Your task to perform on an android device: open chrome and create a bookmark for the current page Image 0: 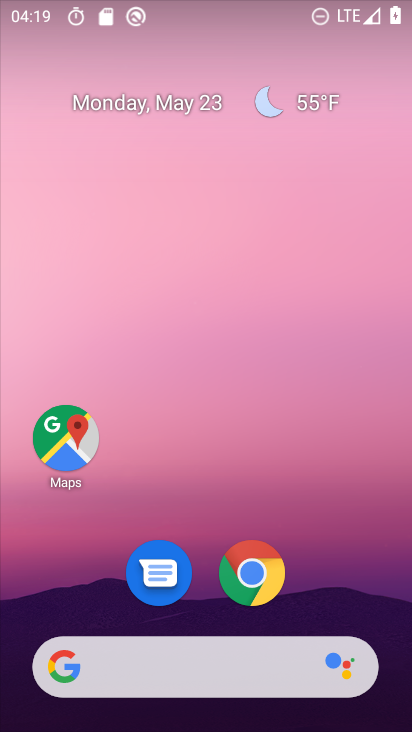
Step 0: click (258, 575)
Your task to perform on an android device: open chrome and create a bookmark for the current page Image 1: 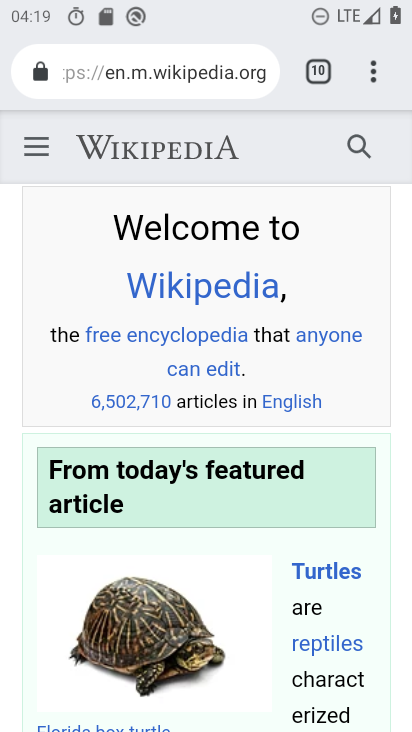
Step 1: click (386, 68)
Your task to perform on an android device: open chrome and create a bookmark for the current page Image 2: 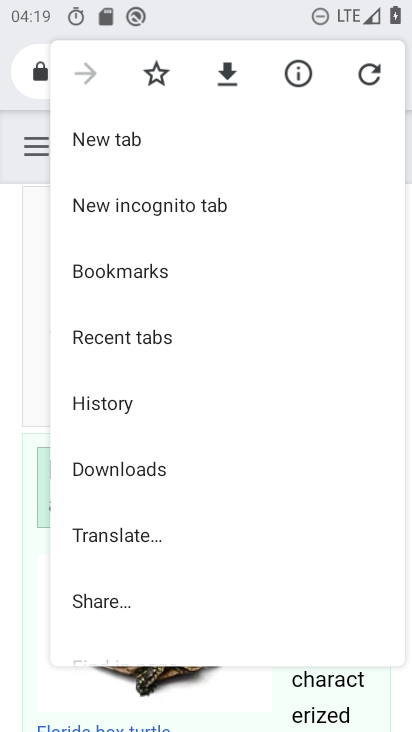
Step 2: click (159, 78)
Your task to perform on an android device: open chrome and create a bookmark for the current page Image 3: 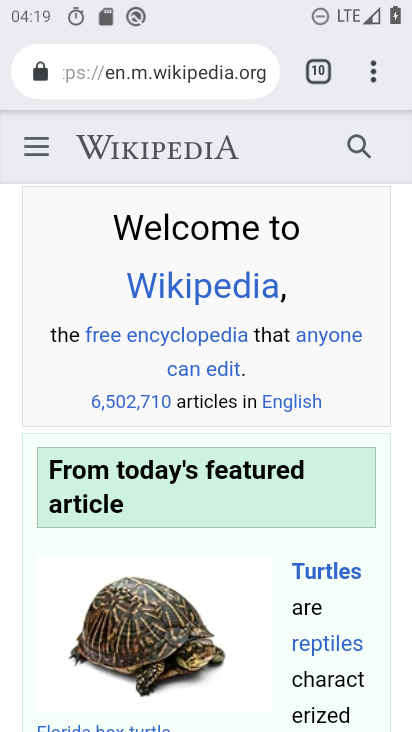
Step 3: task complete